Your task to perform on an android device: toggle notifications settings in the gmail app Image 0: 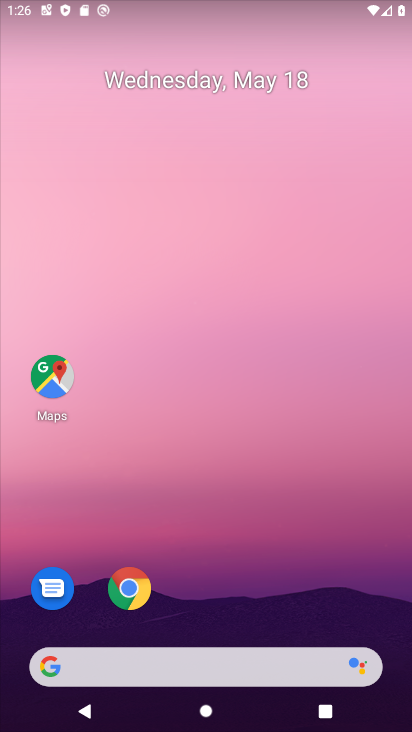
Step 0: drag from (281, 608) to (289, 235)
Your task to perform on an android device: toggle notifications settings in the gmail app Image 1: 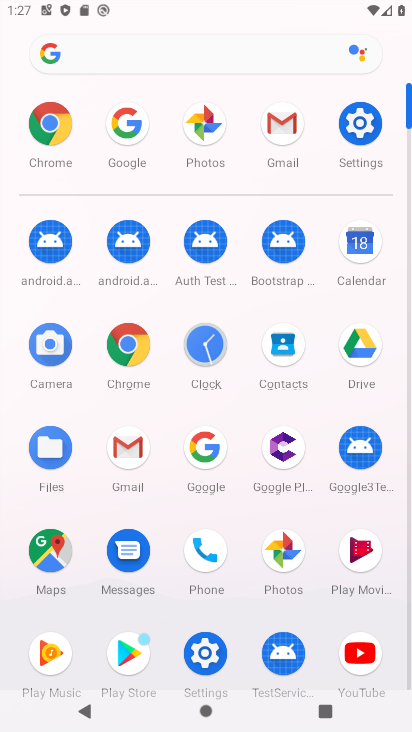
Step 1: click (115, 461)
Your task to perform on an android device: toggle notifications settings in the gmail app Image 2: 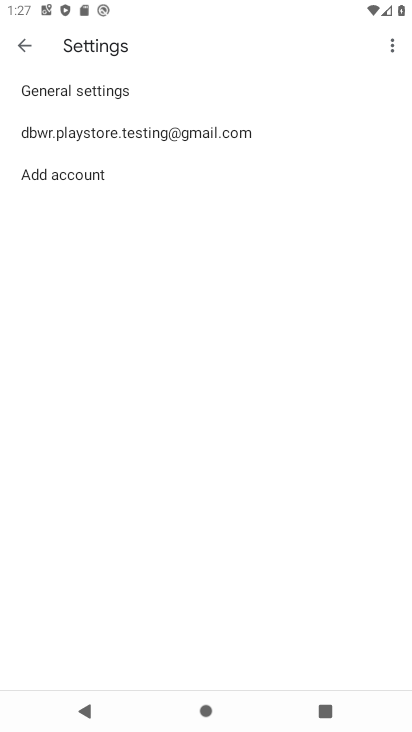
Step 2: click (22, 44)
Your task to perform on an android device: toggle notifications settings in the gmail app Image 3: 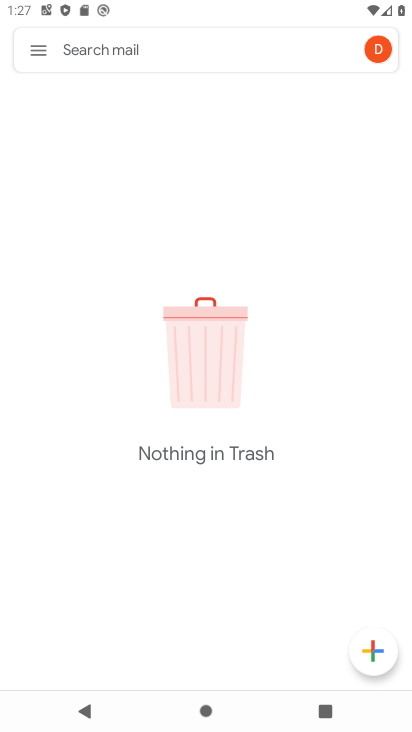
Step 3: click (40, 38)
Your task to perform on an android device: toggle notifications settings in the gmail app Image 4: 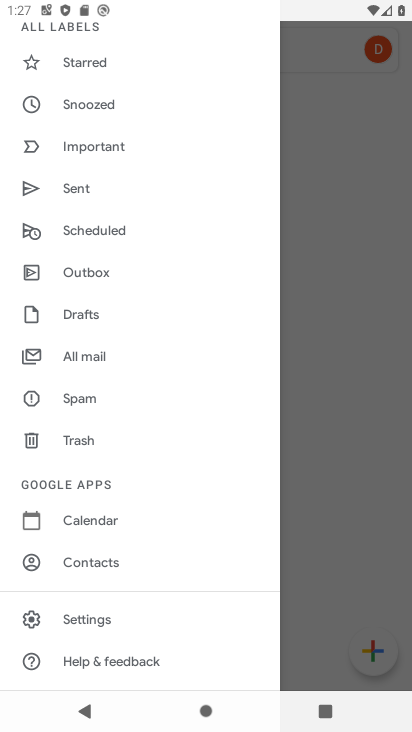
Step 4: drag from (205, 566) to (218, 350)
Your task to perform on an android device: toggle notifications settings in the gmail app Image 5: 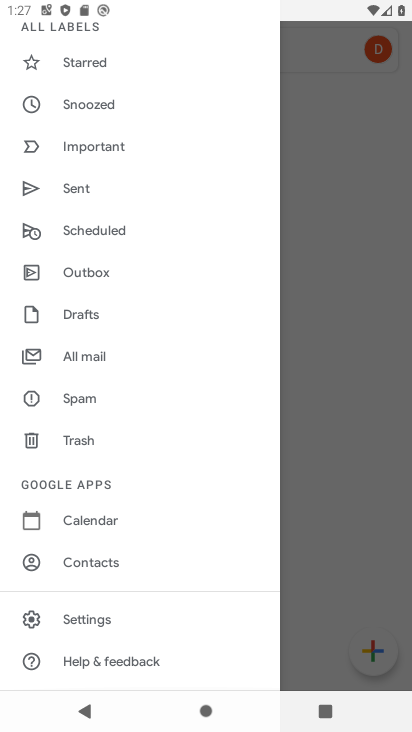
Step 5: drag from (217, 248) to (216, 467)
Your task to perform on an android device: toggle notifications settings in the gmail app Image 6: 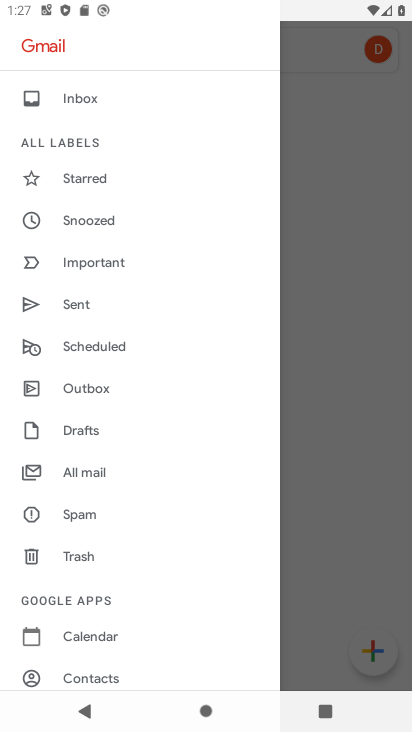
Step 6: drag from (181, 211) to (185, 397)
Your task to perform on an android device: toggle notifications settings in the gmail app Image 7: 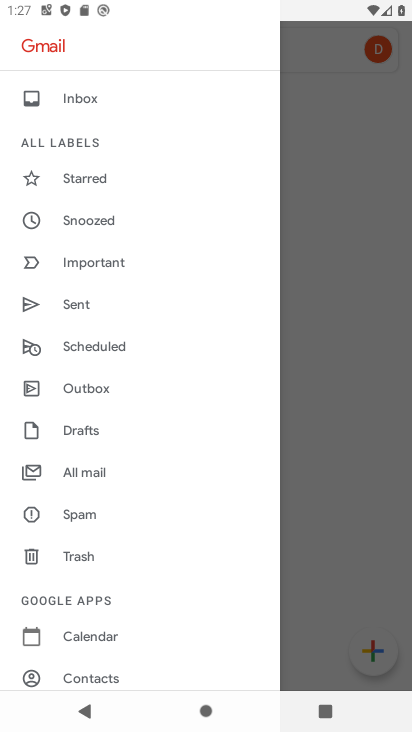
Step 7: drag from (190, 485) to (202, 233)
Your task to perform on an android device: toggle notifications settings in the gmail app Image 8: 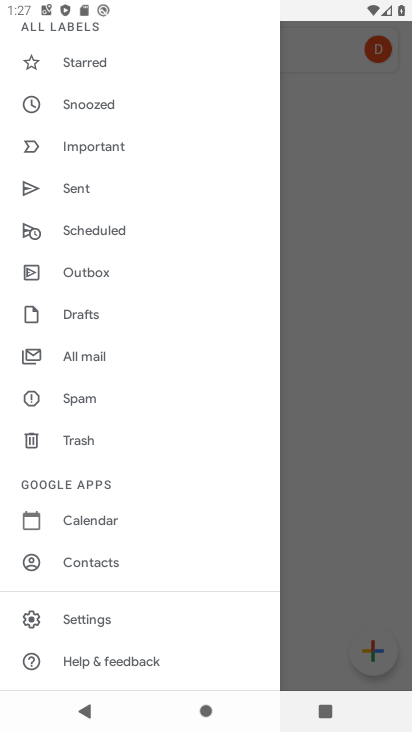
Step 8: click (106, 610)
Your task to perform on an android device: toggle notifications settings in the gmail app Image 9: 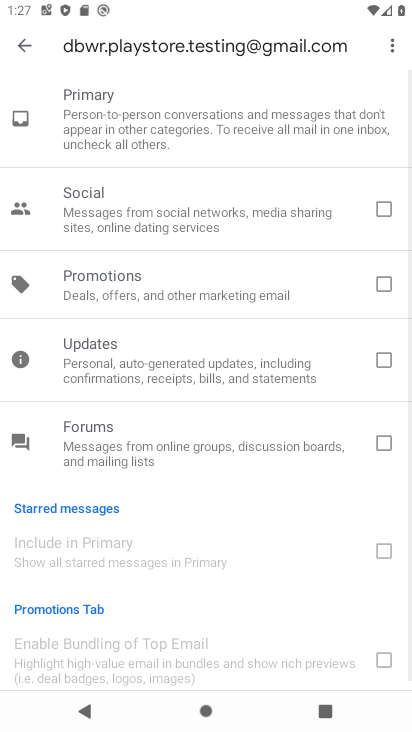
Step 9: drag from (216, 548) to (226, 360)
Your task to perform on an android device: toggle notifications settings in the gmail app Image 10: 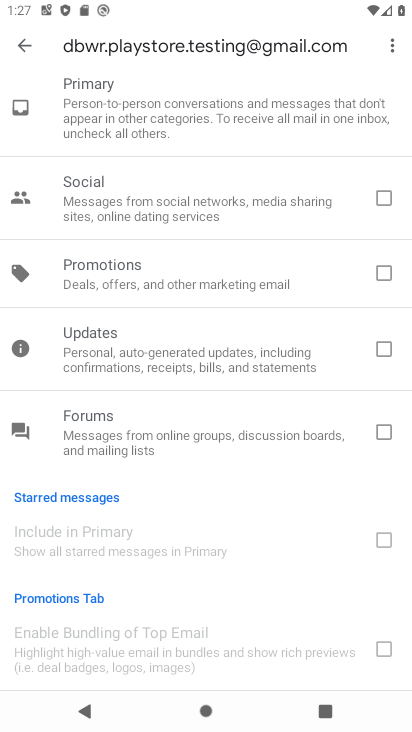
Step 10: click (19, 49)
Your task to perform on an android device: toggle notifications settings in the gmail app Image 11: 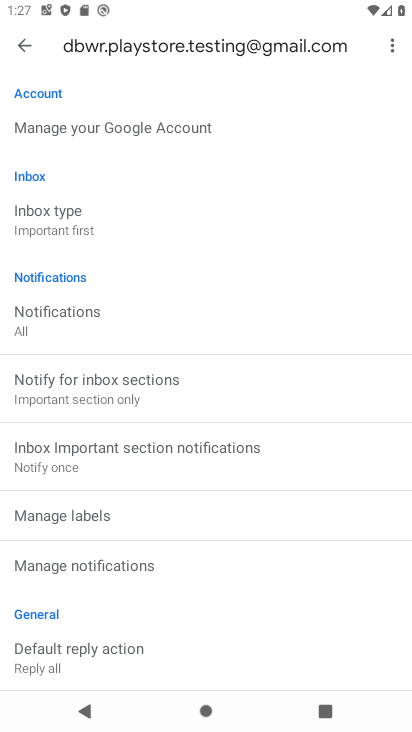
Step 11: drag from (247, 270) to (245, 519)
Your task to perform on an android device: toggle notifications settings in the gmail app Image 12: 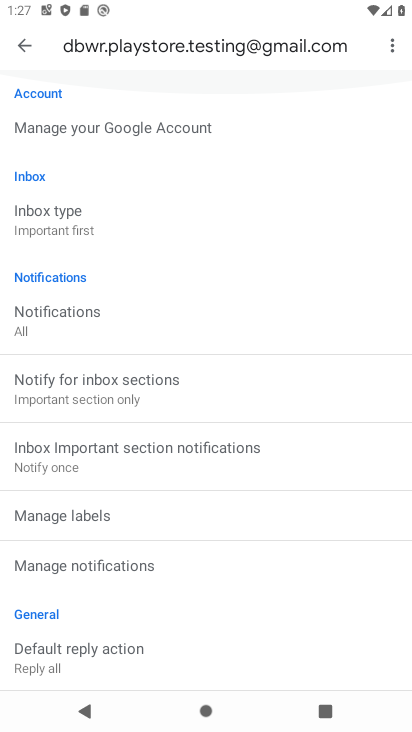
Step 12: drag from (251, 547) to (269, 398)
Your task to perform on an android device: toggle notifications settings in the gmail app Image 13: 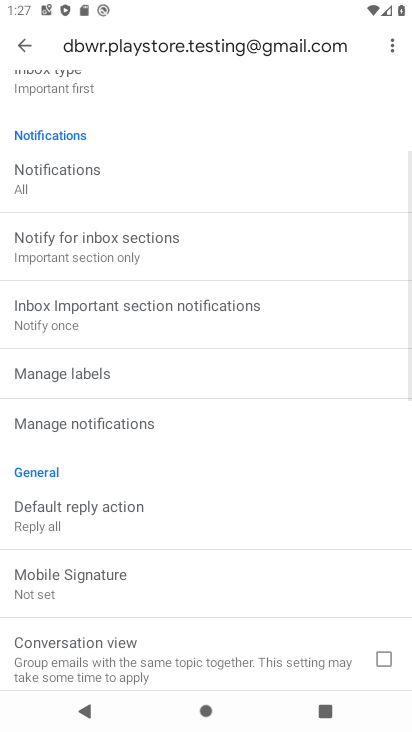
Step 13: drag from (259, 576) to (271, 368)
Your task to perform on an android device: toggle notifications settings in the gmail app Image 14: 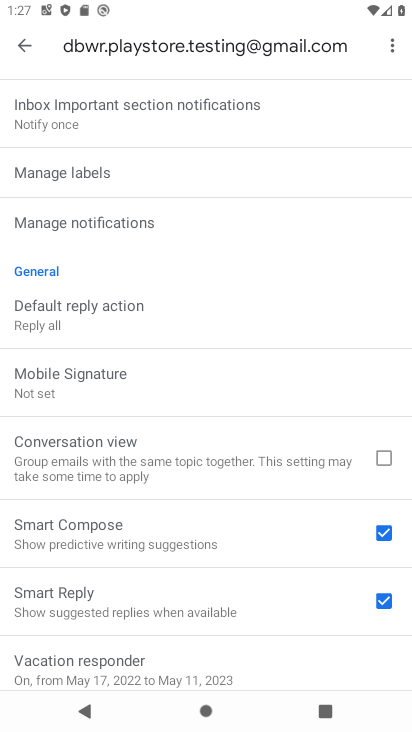
Step 14: drag from (238, 528) to (240, 325)
Your task to perform on an android device: toggle notifications settings in the gmail app Image 15: 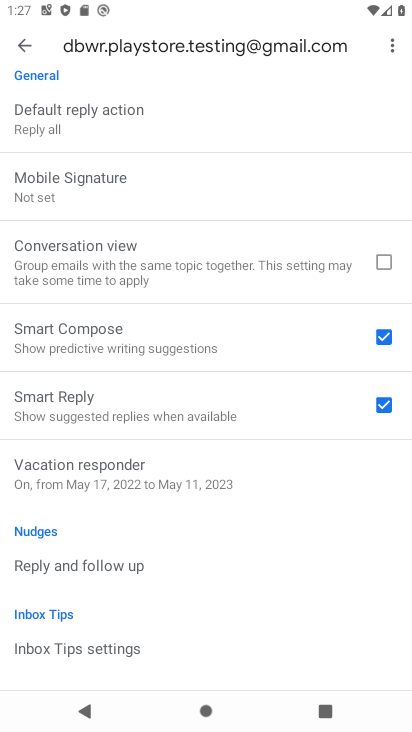
Step 15: drag from (242, 511) to (251, 307)
Your task to perform on an android device: toggle notifications settings in the gmail app Image 16: 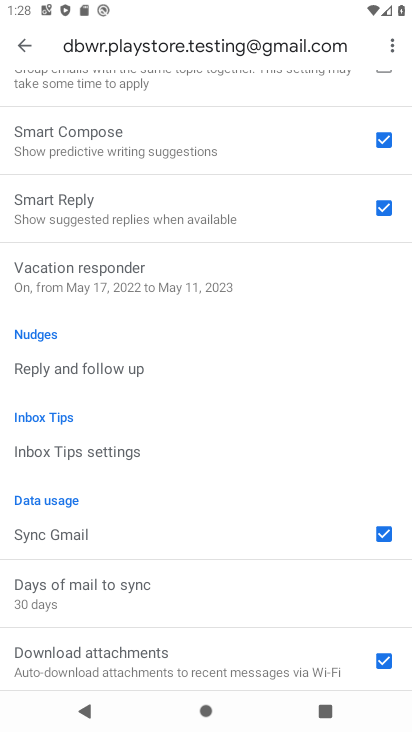
Step 16: drag from (264, 290) to (265, 433)
Your task to perform on an android device: toggle notifications settings in the gmail app Image 17: 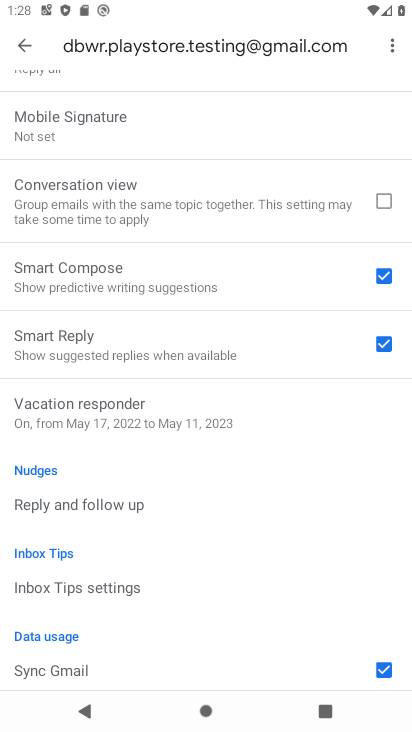
Step 17: drag from (253, 251) to (253, 400)
Your task to perform on an android device: toggle notifications settings in the gmail app Image 18: 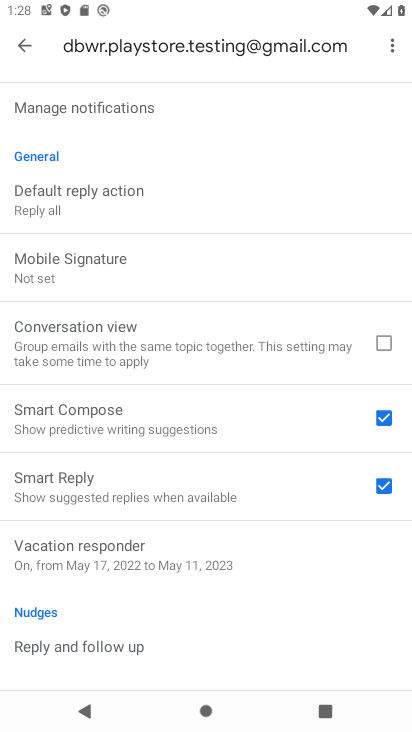
Step 18: drag from (246, 201) to (245, 329)
Your task to perform on an android device: toggle notifications settings in the gmail app Image 19: 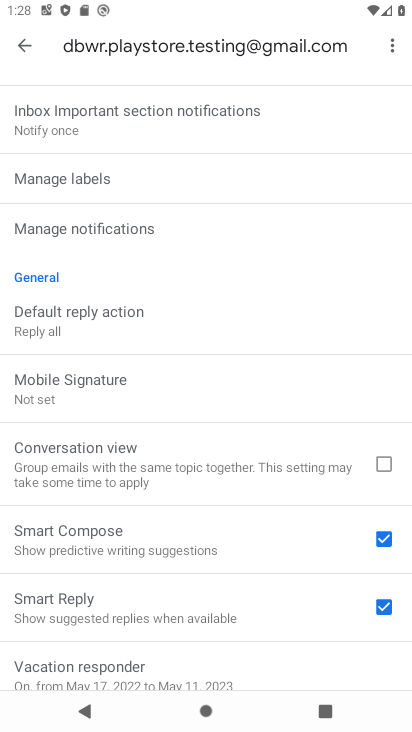
Step 19: click (129, 239)
Your task to perform on an android device: toggle notifications settings in the gmail app Image 20: 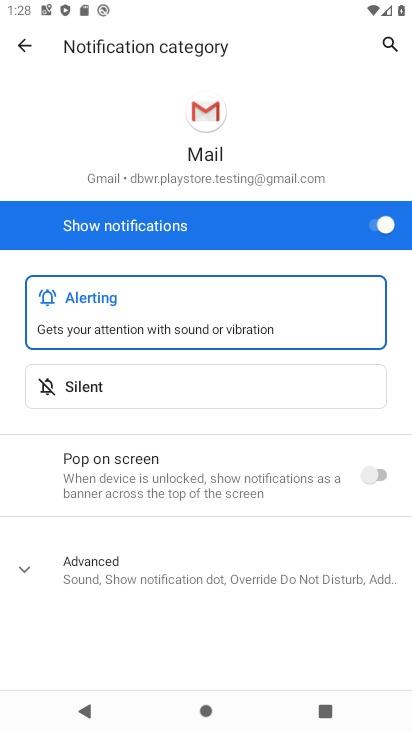
Step 20: click (376, 226)
Your task to perform on an android device: toggle notifications settings in the gmail app Image 21: 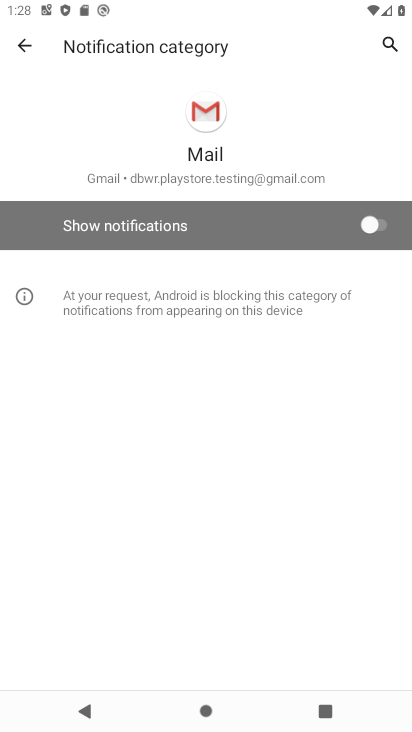
Step 21: task complete